Your task to perform on an android device: set the stopwatch Image 0: 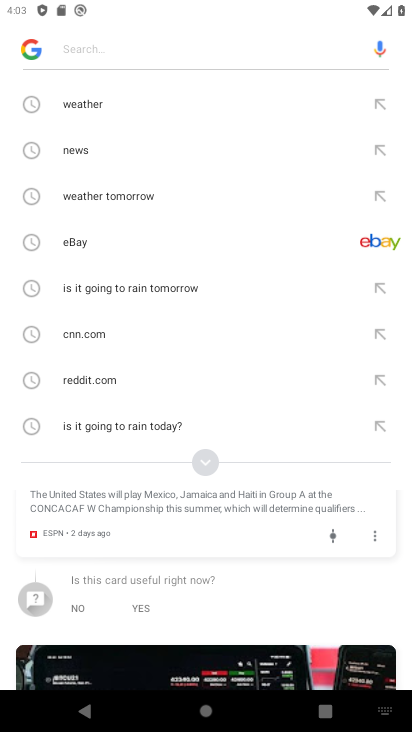
Step 0: press home button
Your task to perform on an android device: set the stopwatch Image 1: 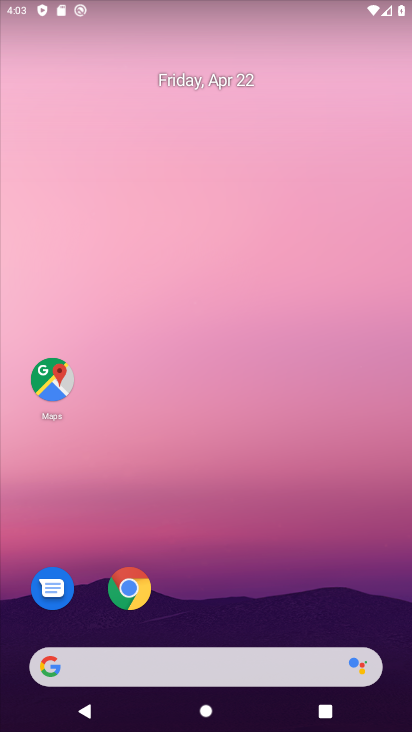
Step 1: drag from (188, 621) to (133, 47)
Your task to perform on an android device: set the stopwatch Image 2: 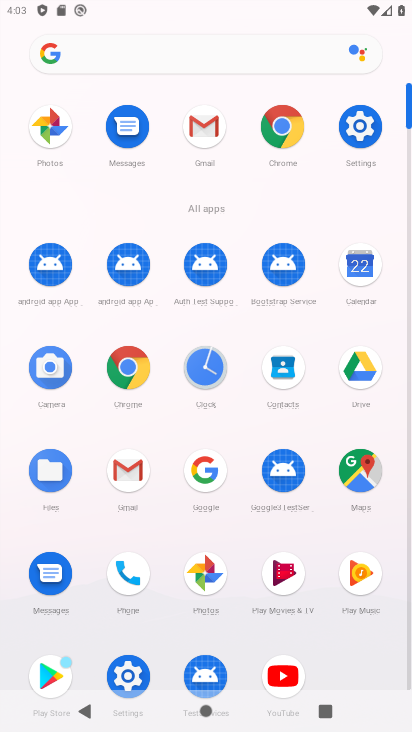
Step 2: click (204, 360)
Your task to perform on an android device: set the stopwatch Image 3: 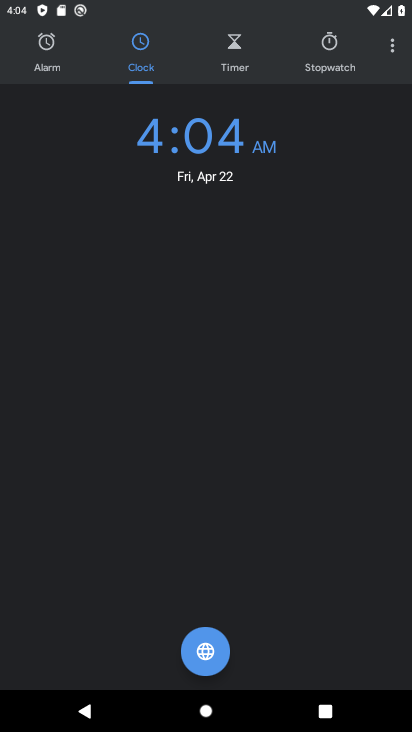
Step 3: click (314, 48)
Your task to perform on an android device: set the stopwatch Image 4: 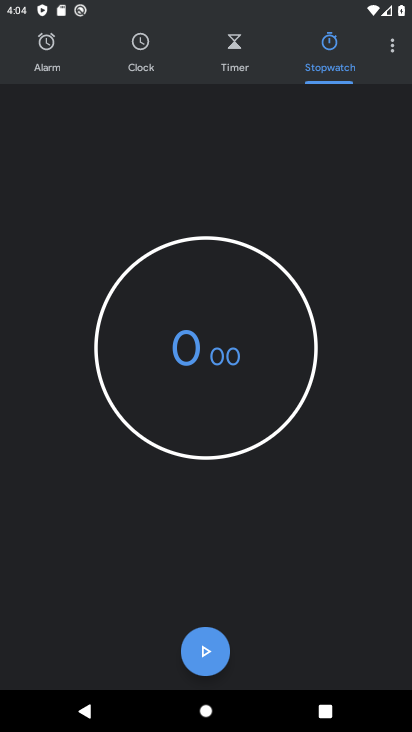
Step 4: click (213, 656)
Your task to perform on an android device: set the stopwatch Image 5: 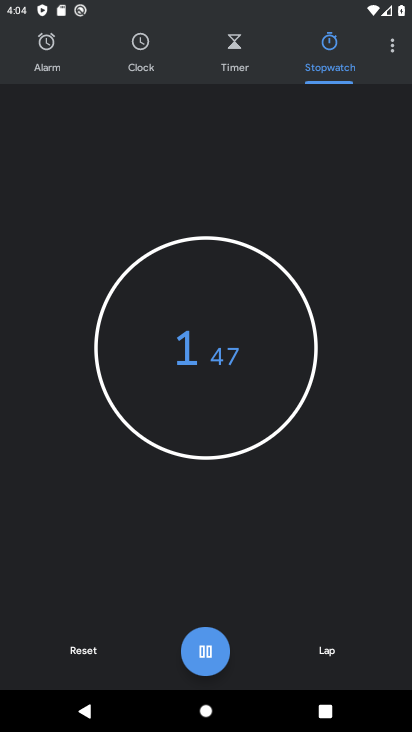
Step 5: click (216, 652)
Your task to perform on an android device: set the stopwatch Image 6: 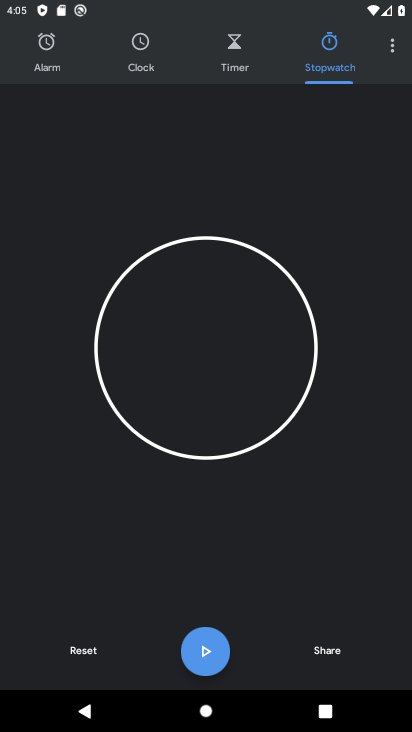
Step 6: task complete